Your task to perform on an android device: Open calendar and show me the second week of next month Image 0: 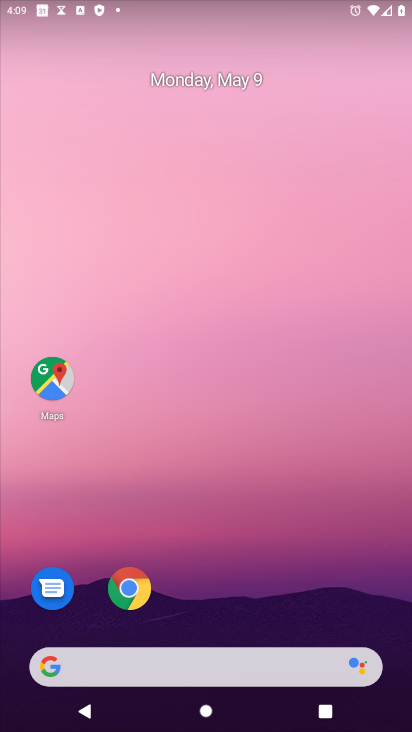
Step 0: drag from (241, 455) to (174, 92)
Your task to perform on an android device: Open calendar and show me the second week of next month Image 1: 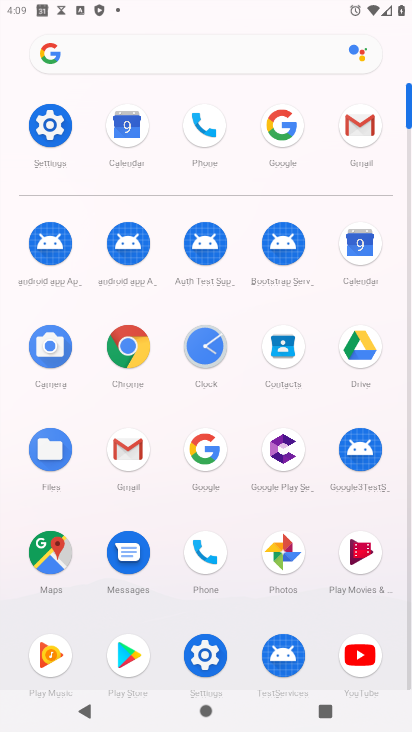
Step 1: click (361, 241)
Your task to perform on an android device: Open calendar and show me the second week of next month Image 2: 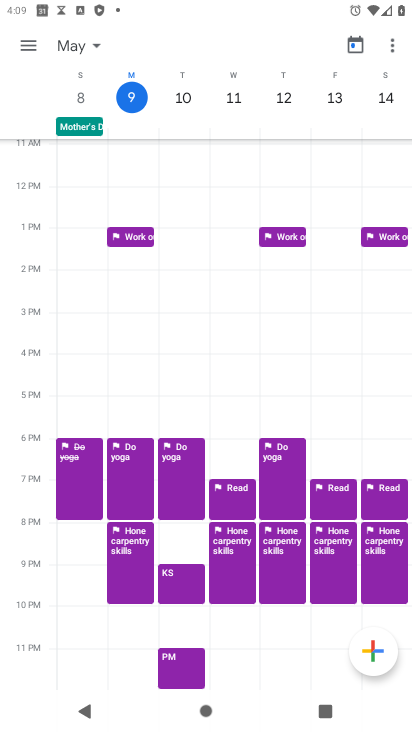
Step 2: click (77, 34)
Your task to perform on an android device: Open calendar and show me the second week of next month Image 3: 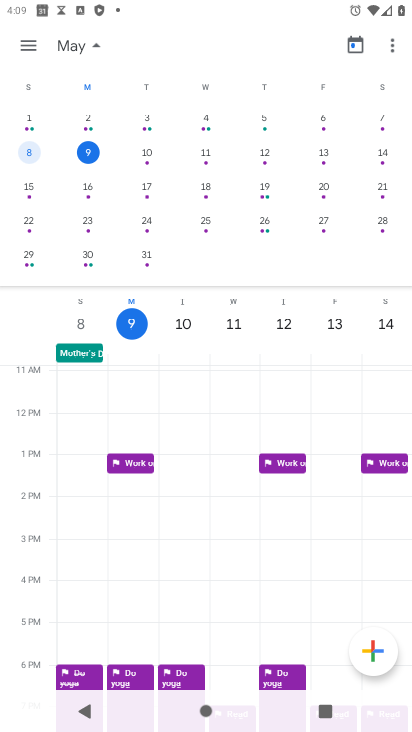
Step 3: drag from (335, 171) to (10, 187)
Your task to perform on an android device: Open calendar and show me the second week of next month Image 4: 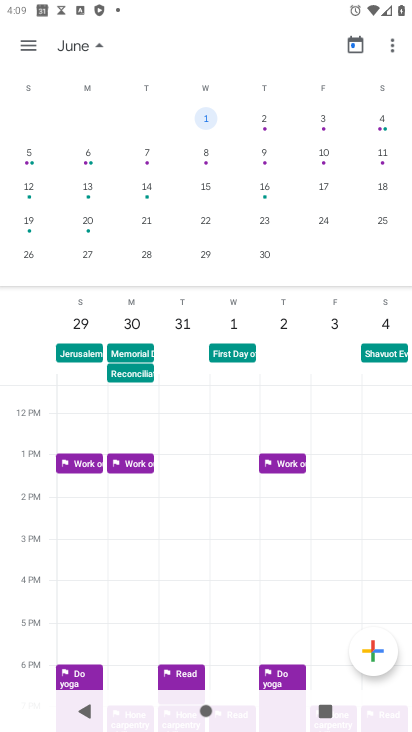
Step 4: click (42, 158)
Your task to perform on an android device: Open calendar and show me the second week of next month Image 5: 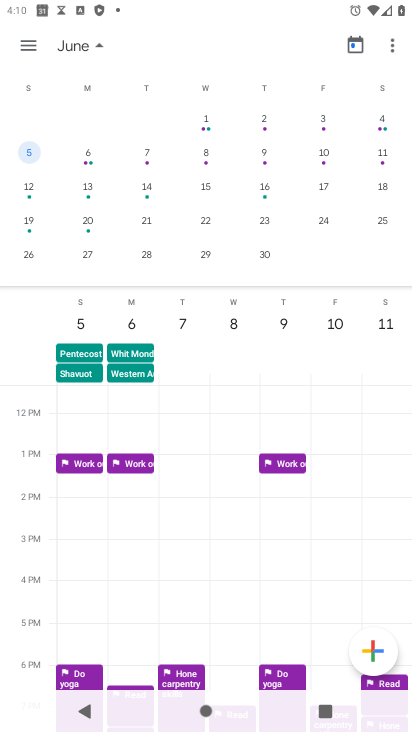
Step 5: task complete